Your task to perform on an android device: turn on airplane mode Image 0: 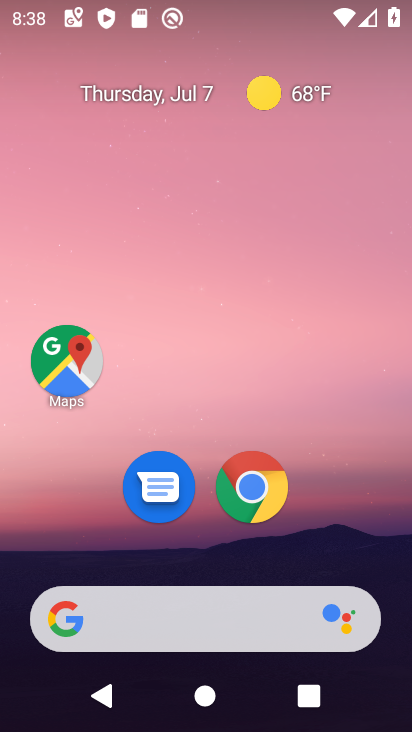
Step 0: drag from (215, 564) to (208, 726)
Your task to perform on an android device: turn on airplane mode Image 1: 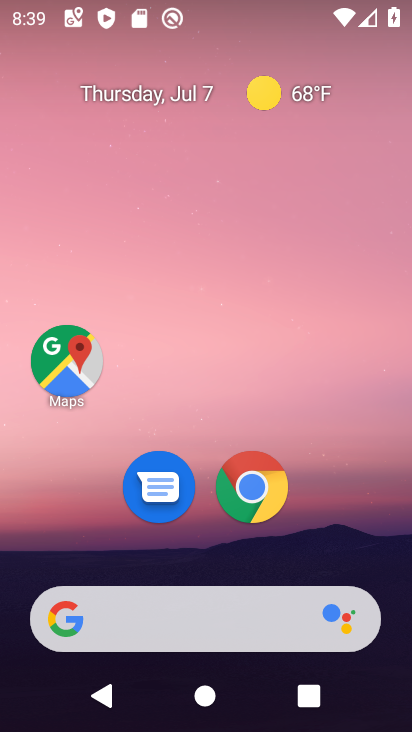
Step 1: drag from (213, 555) to (191, 89)
Your task to perform on an android device: turn on airplane mode Image 2: 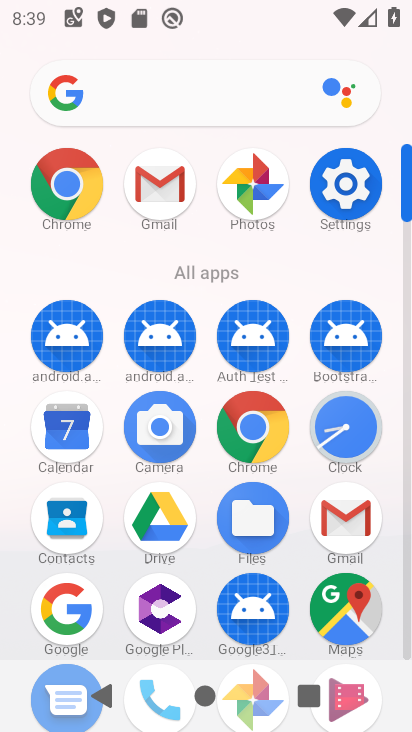
Step 2: click (336, 199)
Your task to perform on an android device: turn on airplane mode Image 3: 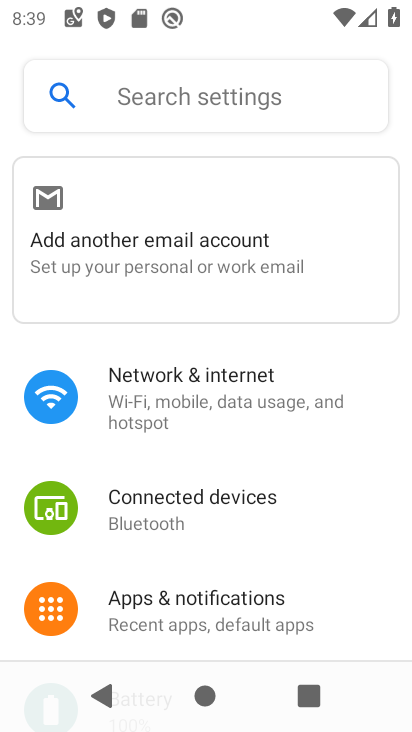
Step 3: click (133, 402)
Your task to perform on an android device: turn on airplane mode Image 4: 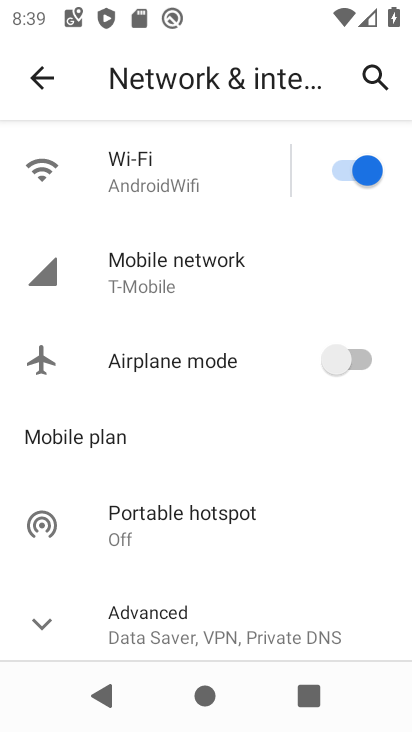
Step 4: click (364, 356)
Your task to perform on an android device: turn on airplane mode Image 5: 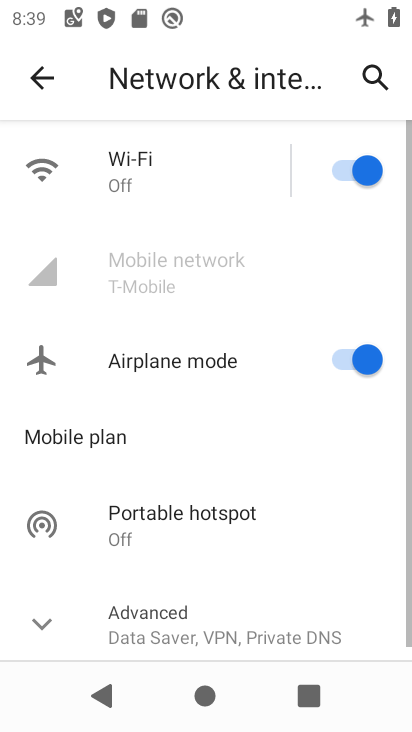
Step 5: task complete